Your task to perform on an android device: Is it going to rain this weekend? Image 0: 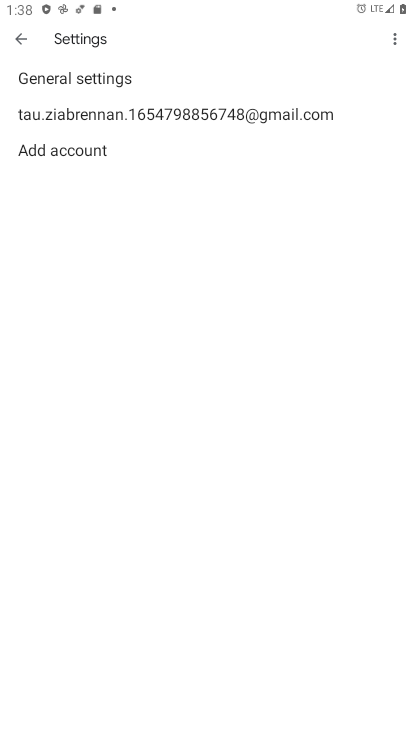
Step 0: press home button
Your task to perform on an android device: Is it going to rain this weekend? Image 1: 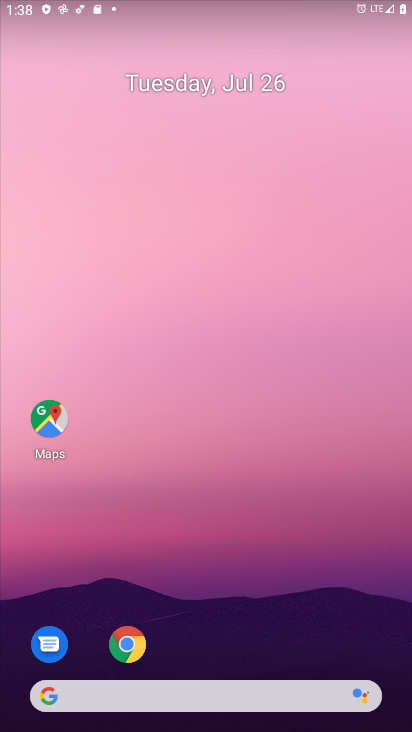
Step 1: click (247, 699)
Your task to perform on an android device: Is it going to rain this weekend? Image 2: 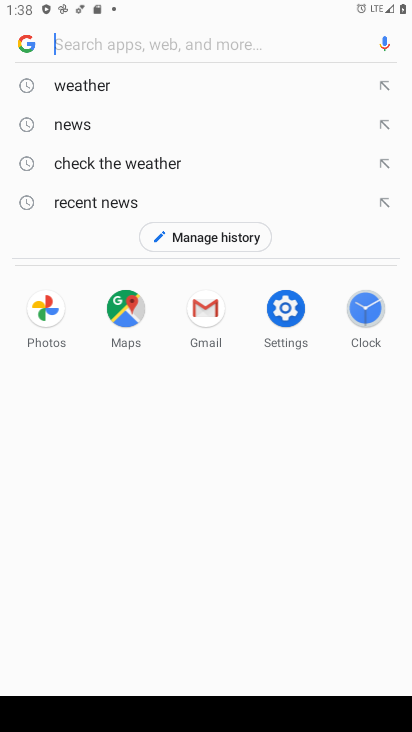
Step 2: type "Is it going to rain this weekend?"
Your task to perform on an android device: Is it going to rain this weekend? Image 3: 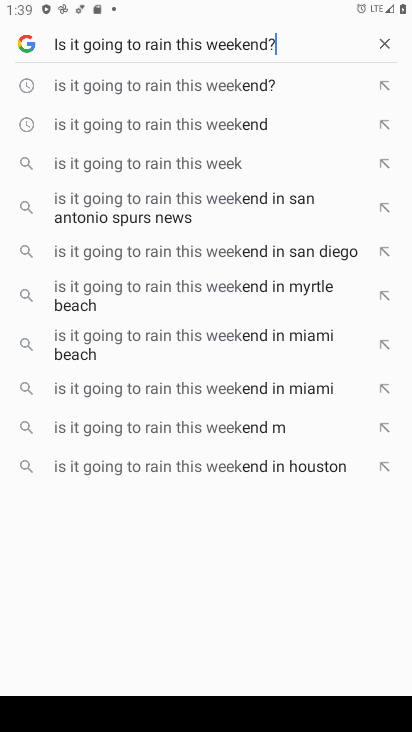
Step 3: press enter
Your task to perform on an android device: Is it going to rain this weekend? Image 4: 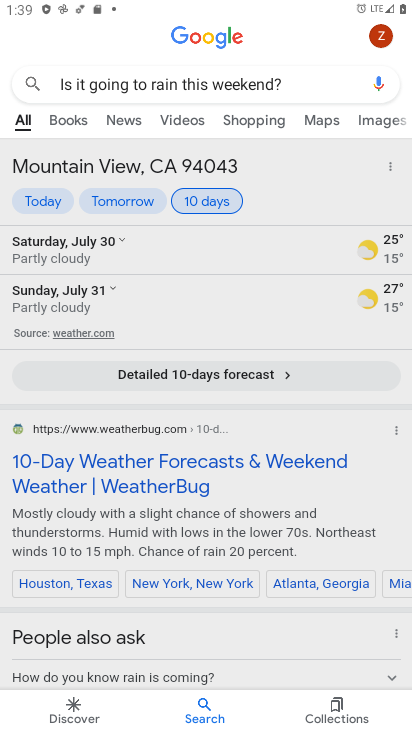
Step 4: type "Is it going to rain this weekend?"
Your task to perform on an android device: Is it going to rain this weekend? Image 5: 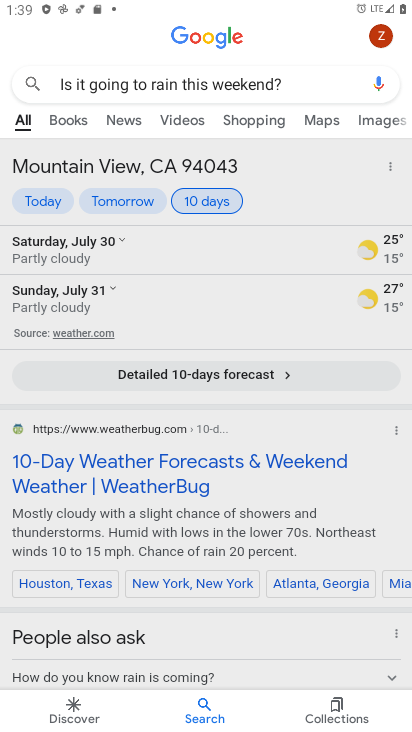
Step 5: task complete